Your task to perform on an android device: What's the weather? Image 0: 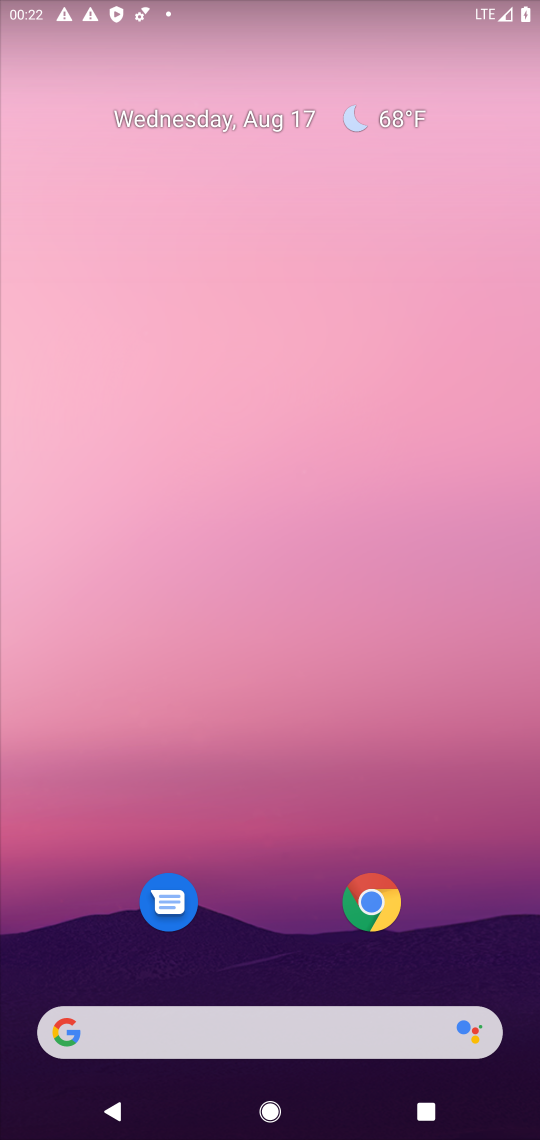
Step 0: click (359, 1019)
Your task to perform on an android device: What's the weather? Image 1: 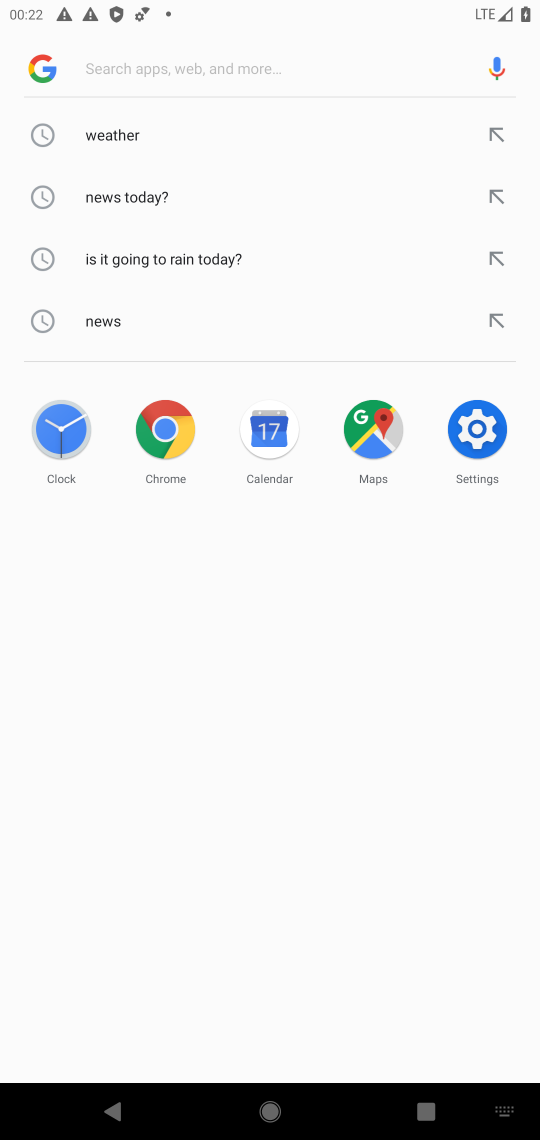
Step 1: click (128, 127)
Your task to perform on an android device: What's the weather? Image 2: 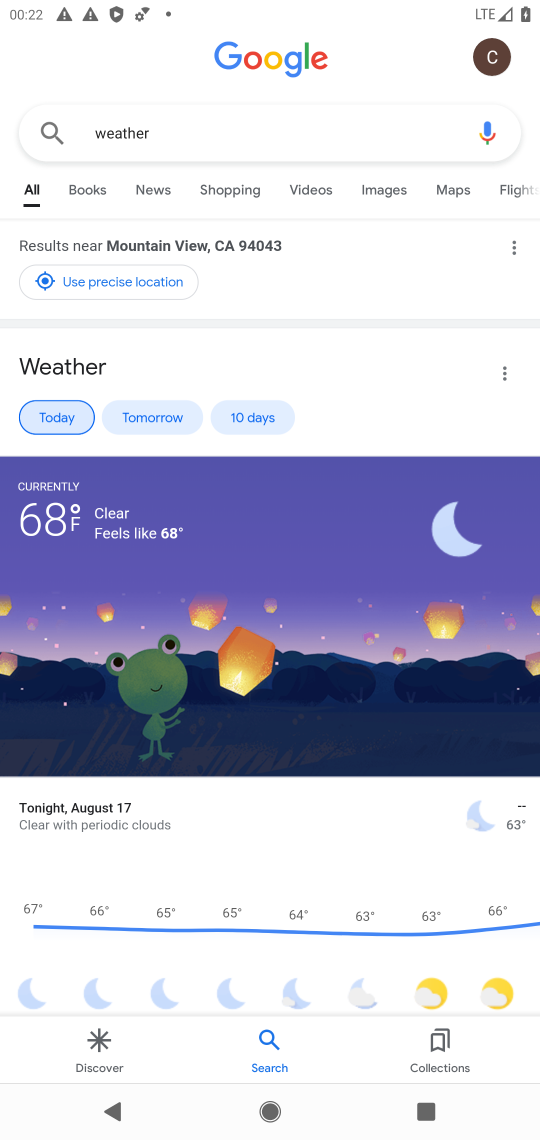
Step 2: task complete